Your task to perform on an android device: Go to settings Image 0: 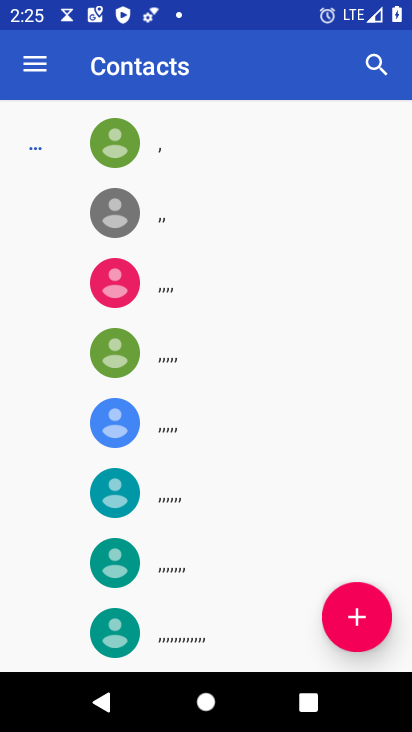
Step 0: press back button
Your task to perform on an android device: Go to settings Image 1: 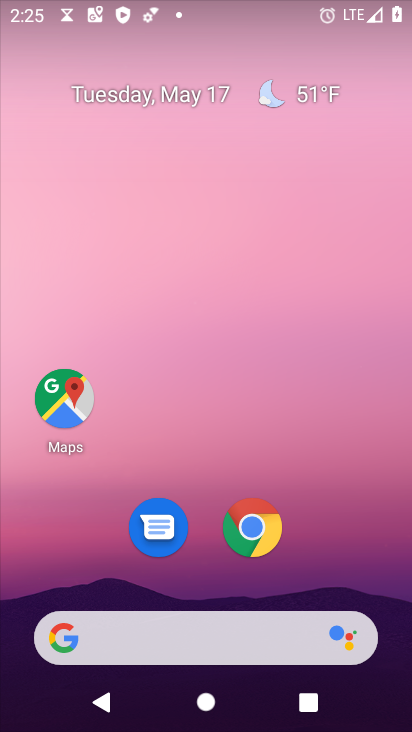
Step 1: drag from (333, 547) to (268, 153)
Your task to perform on an android device: Go to settings Image 2: 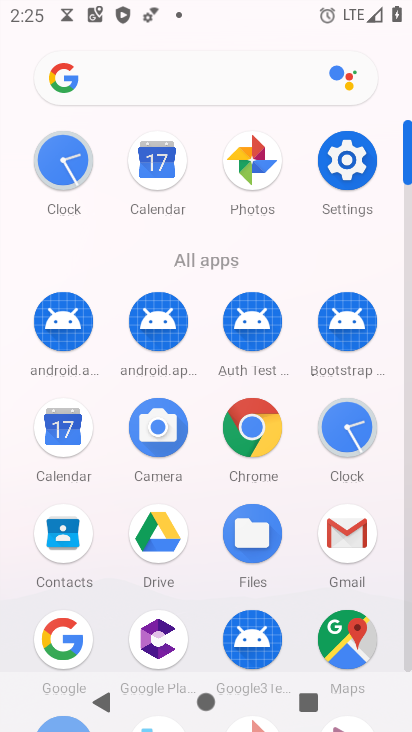
Step 2: click (350, 161)
Your task to perform on an android device: Go to settings Image 3: 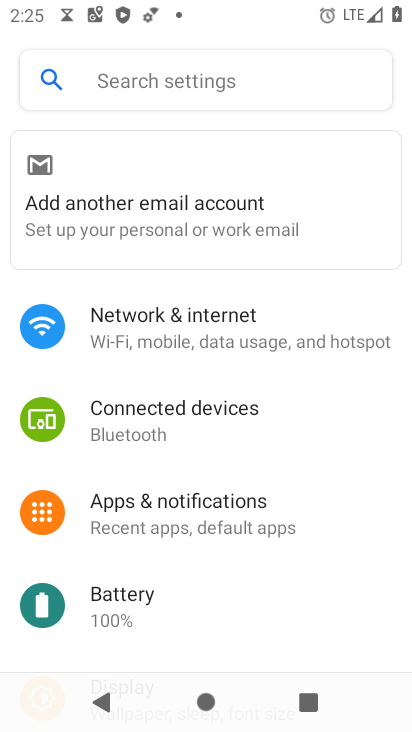
Step 3: task complete